Your task to perform on an android device: toggle pop-ups in chrome Image 0: 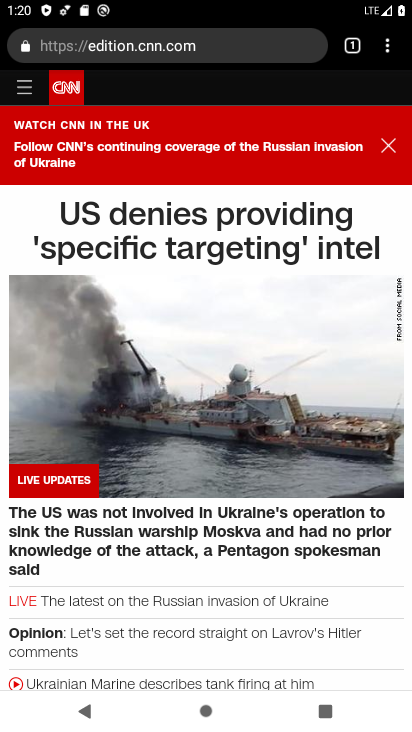
Step 0: press home button
Your task to perform on an android device: toggle pop-ups in chrome Image 1: 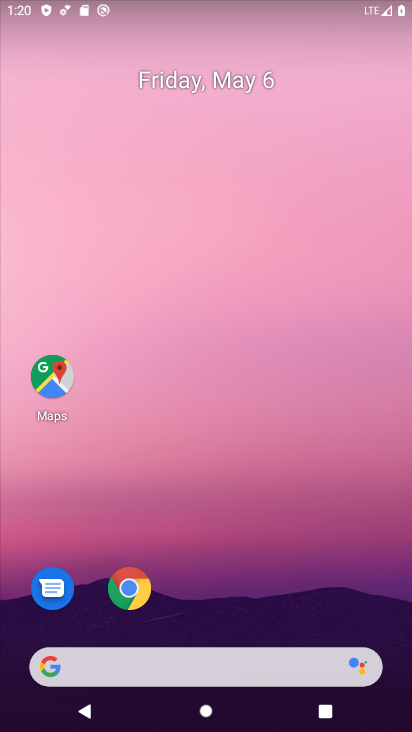
Step 1: drag from (324, 578) to (334, 109)
Your task to perform on an android device: toggle pop-ups in chrome Image 2: 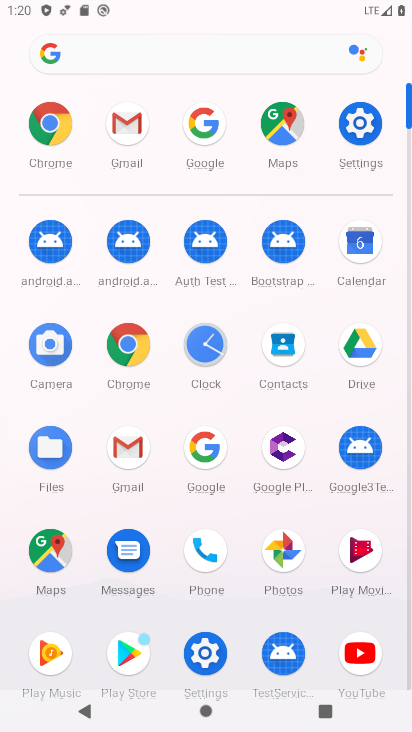
Step 2: click (54, 130)
Your task to perform on an android device: toggle pop-ups in chrome Image 3: 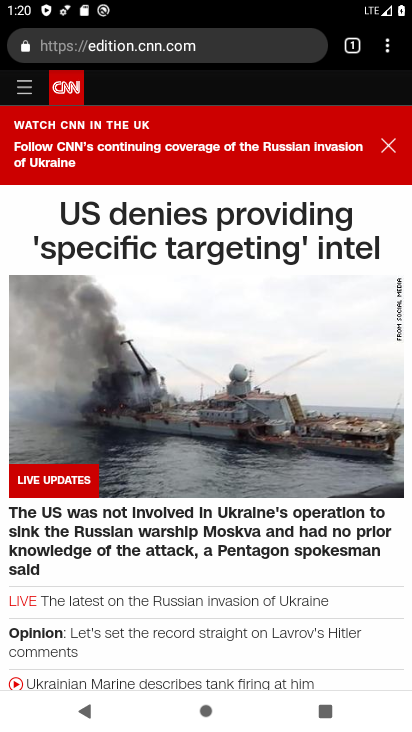
Step 3: drag from (394, 41) to (249, 508)
Your task to perform on an android device: toggle pop-ups in chrome Image 4: 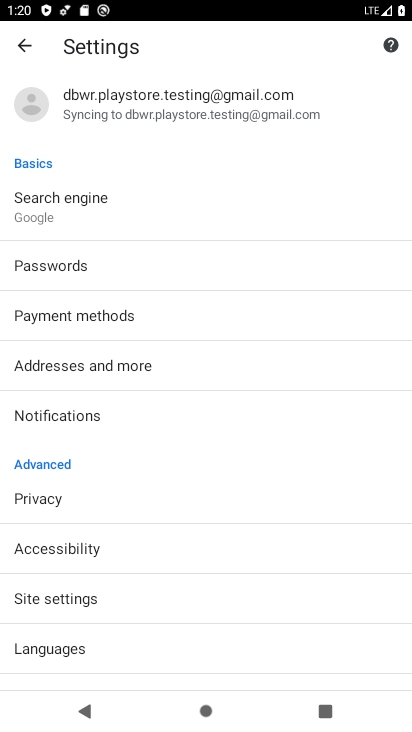
Step 4: click (115, 599)
Your task to perform on an android device: toggle pop-ups in chrome Image 5: 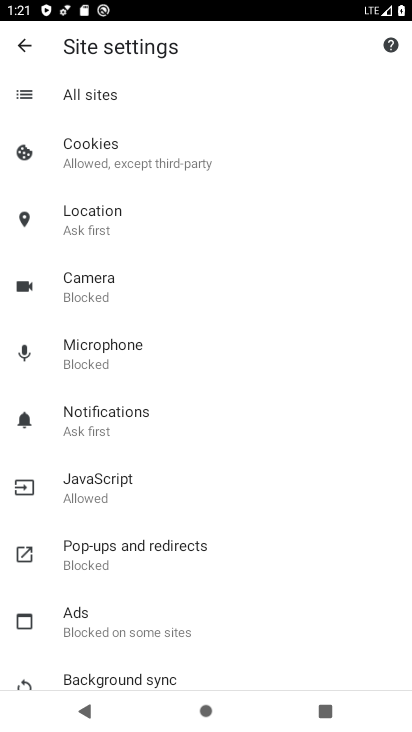
Step 5: click (236, 554)
Your task to perform on an android device: toggle pop-ups in chrome Image 6: 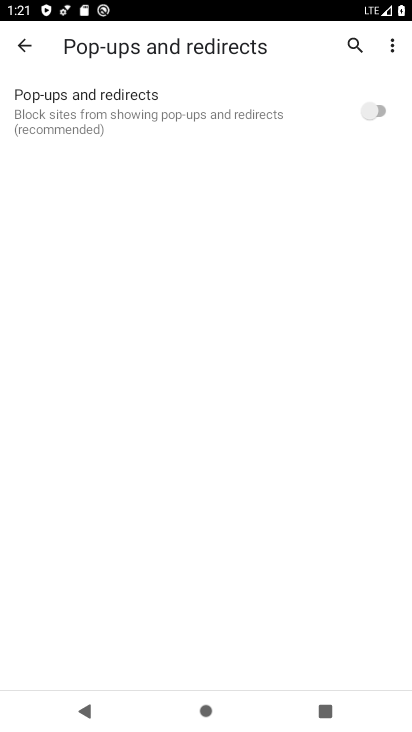
Step 6: click (384, 107)
Your task to perform on an android device: toggle pop-ups in chrome Image 7: 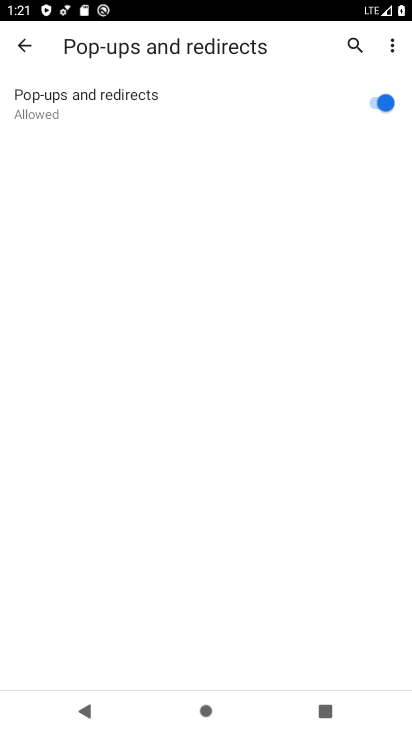
Step 7: task complete